Your task to perform on an android device: turn on wifi Image 0: 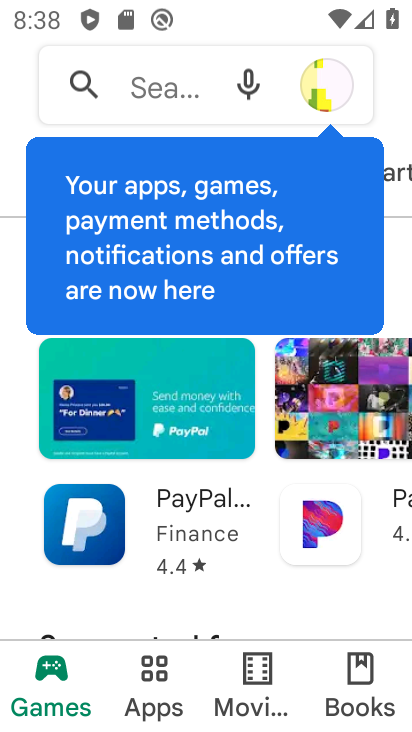
Step 0: press back button
Your task to perform on an android device: turn on wifi Image 1: 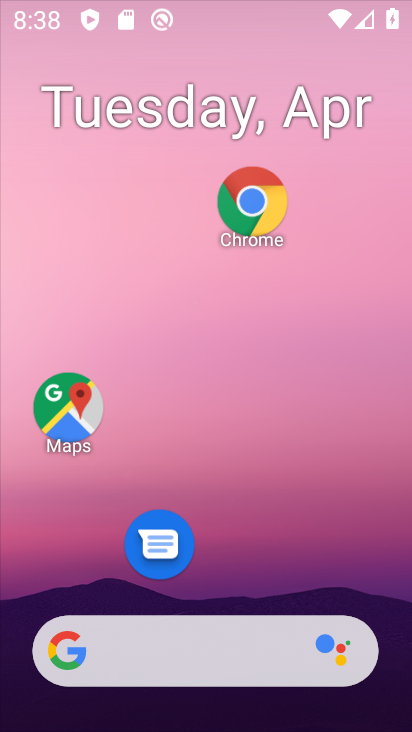
Step 1: task complete